Your task to perform on an android device: Go to settings Image 0: 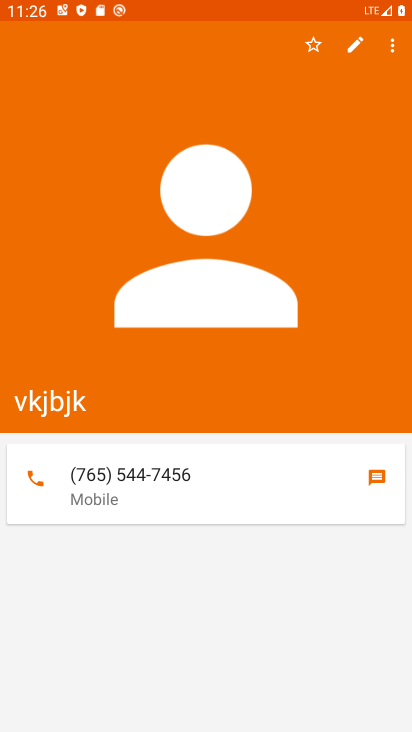
Step 0: press home button
Your task to perform on an android device: Go to settings Image 1: 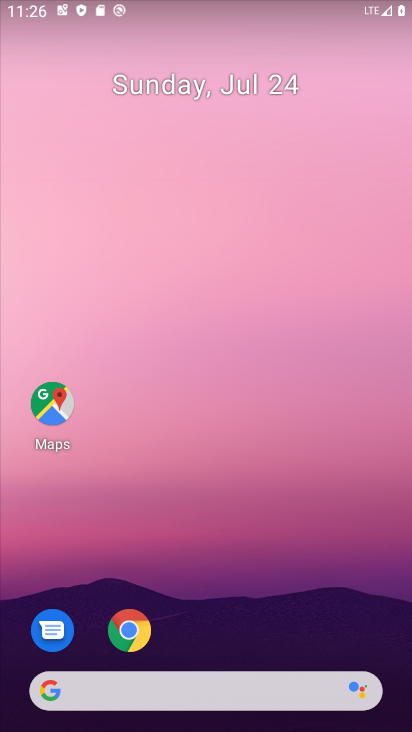
Step 1: drag from (235, 390) to (235, 249)
Your task to perform on an android device: Go to settings Image 2: 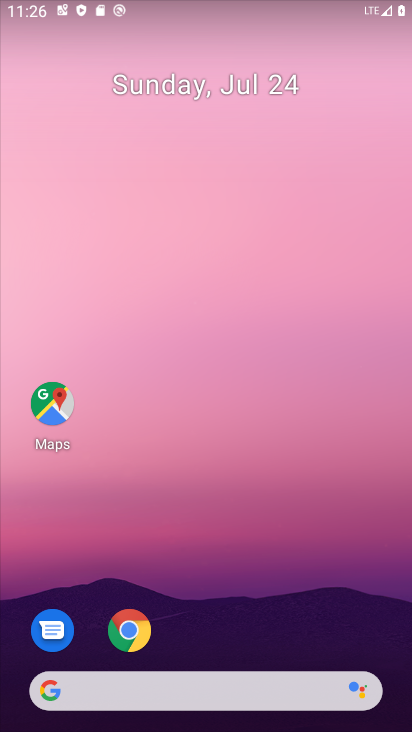
Step 2: drag from (208, 634) to (231, 161)
Your task to perform on an android device: Go to settings Image 3: 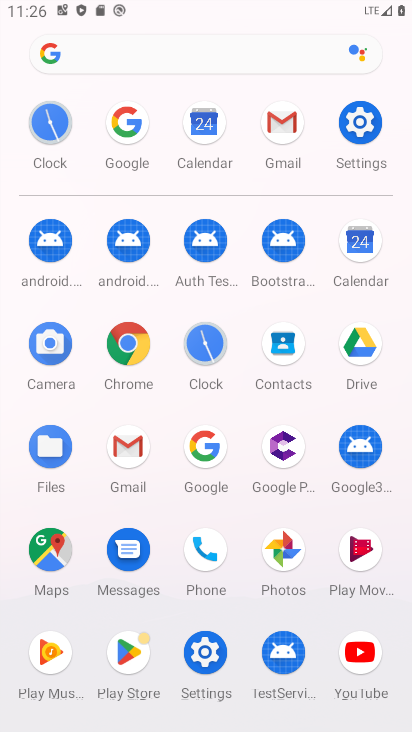
Step 3: click (341, 121)
Your task to perform on an android device: Go to settings Image 4: 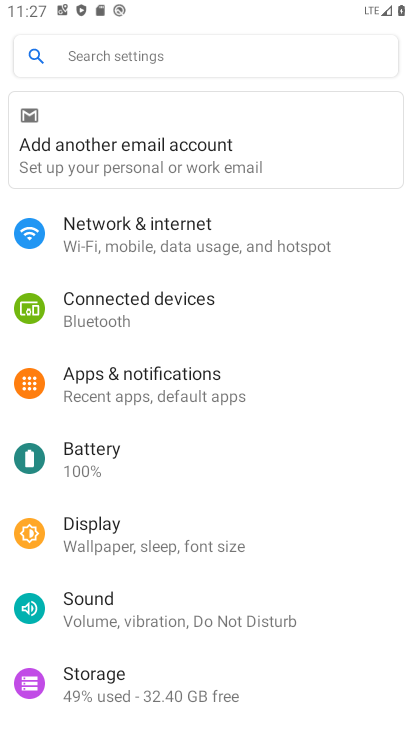
Step 4: task complete